Your task to perform on an android device: turn on javascript in the chrome app Image 0: 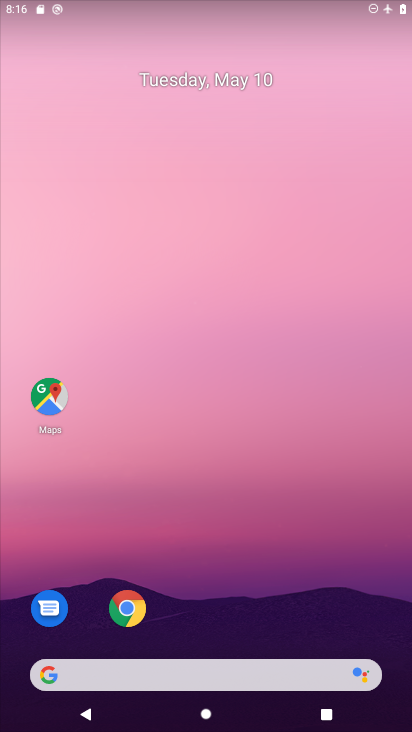
Step 0: drag from (273, 594) to (288, 293)
Your task to perform on an android device: turn on javascript in the chrome app Image 1: 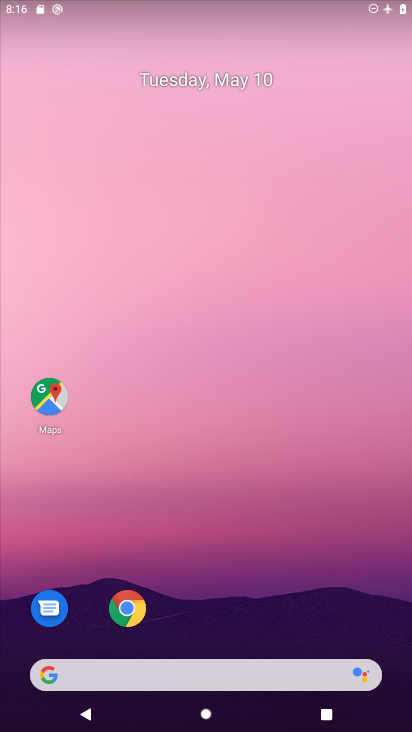
Step 1: drag from (280, 637) to (314, 278)
Your task to perform on an android device: turn on javascript in the chrome app Image 2: 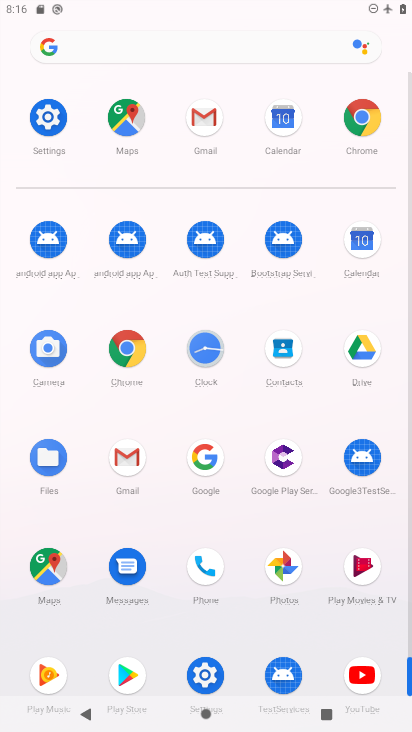
Step 2: click (368, 117)
Your task to perform on an android device: turn on javascript in the chrome app Image 3: 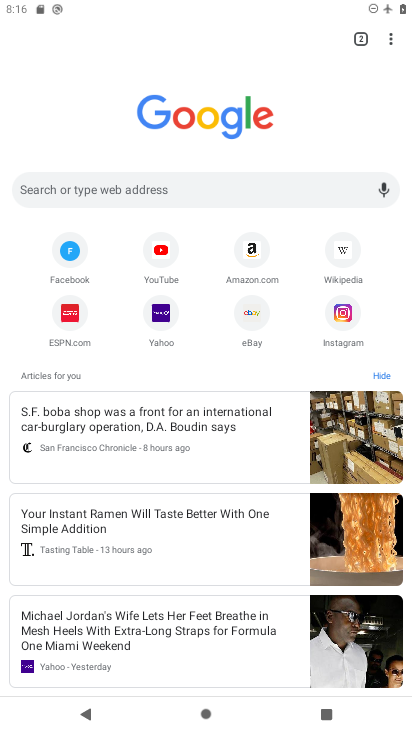
Step 3: click (383, 39)
Your task to perform on an android device: turn on javascript in the chrome app Image 4: 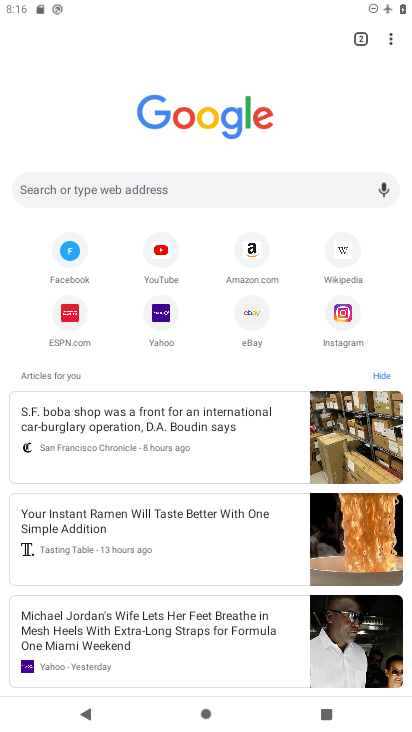
Step 4: click (384, 40)
Your task to perform on an android device: turn on javascript in the chrome app Image 5: 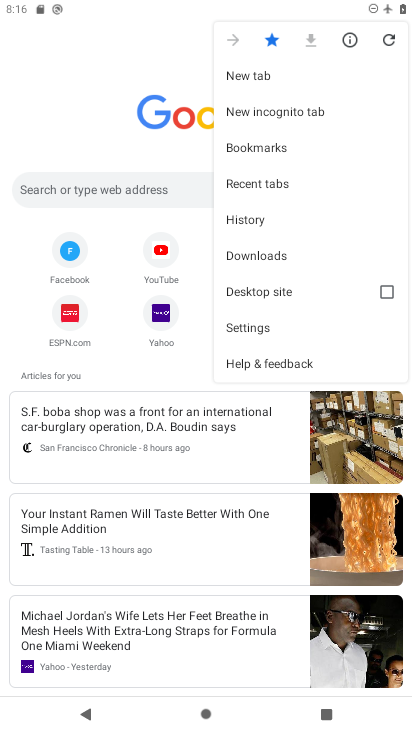
Step 5: click (250, 325)
Your task to perform on an android device: turn on javascript in the chrome app Image 6: 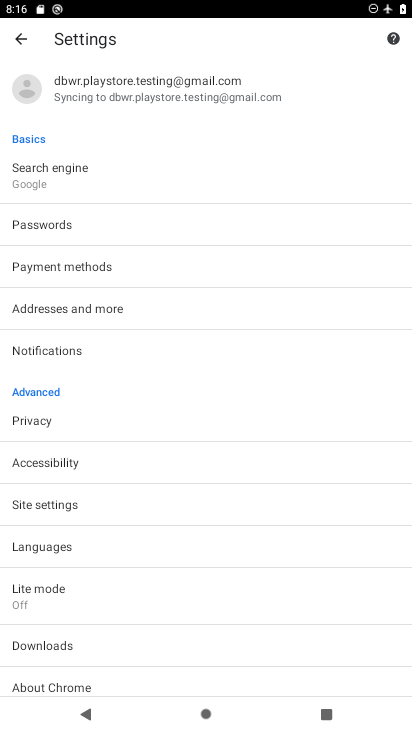
Step 6: click (82, 507)
Your task to perform on an android device: turn on javascript in the chrome app Image 7: 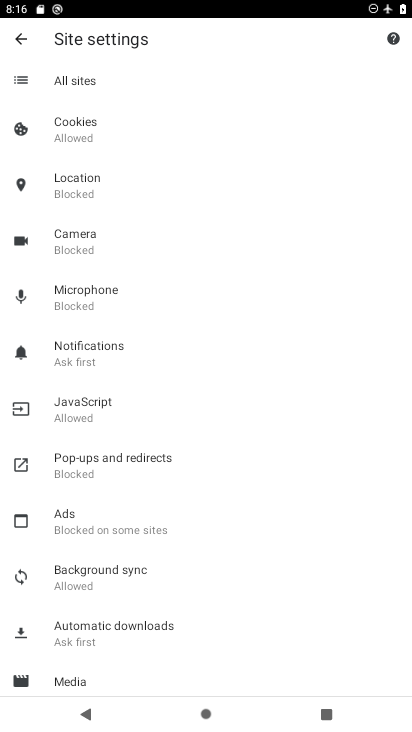
Step 7: click (104, 400)
Your task to perform on an android device: turn on javascript in the chrome app Image 8: 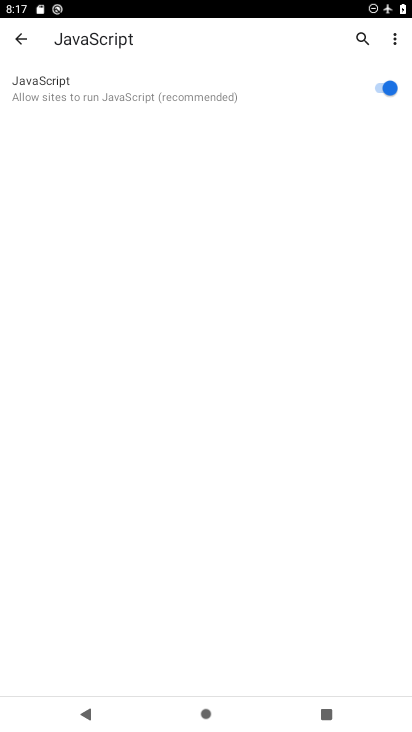
Step 8: task complete